Your task to perform on an android device: Turn on the flashlight Image 0: 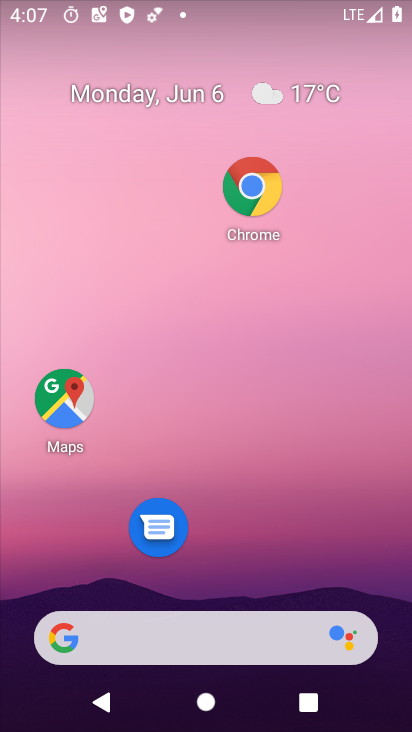
Step 0: drag from (187, 3) to (187, 495)
Your task to perform on an android device: Turn on the flashlight Image 1: 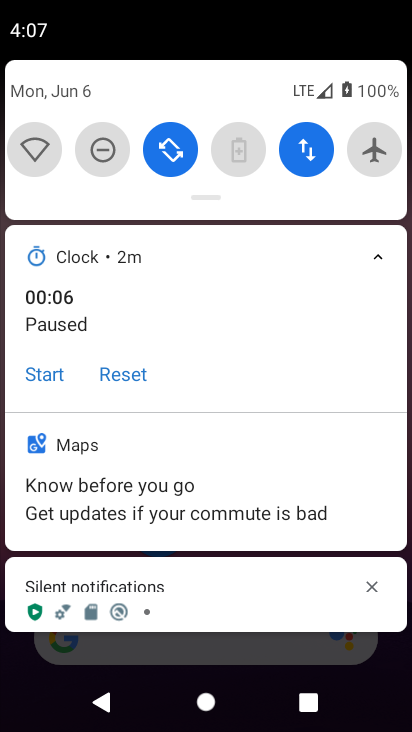
Step 1: drag from (198, 163) to (198, 507)
Your task to perform on an android device: Turn on the flashlight Image 2: 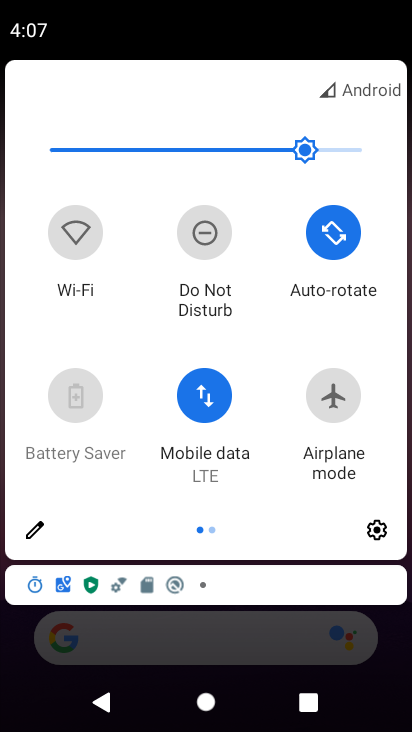
Step 2: drag from (358, 329) to (17, 492)
Your task to perform on an android device: Turn on the flashlight Image 3: 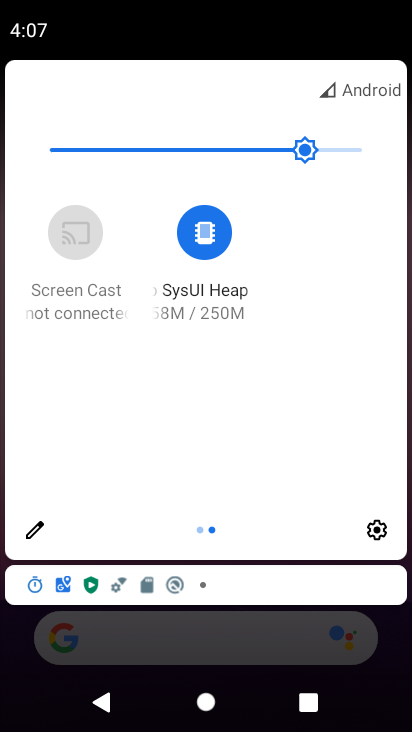
Step 3: click (25, 526)
Your task to perform on an android device: Turn on the flashlight Image 4: 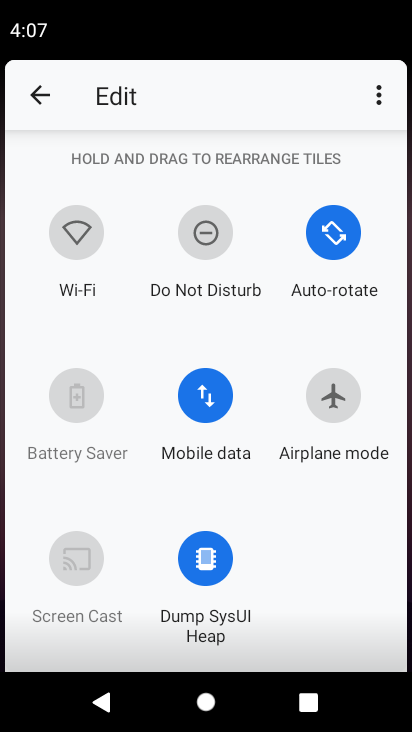
Step 4: task complete